Your task to perform on an android device: Search for custom t-shirts on Etsy. Image 0: 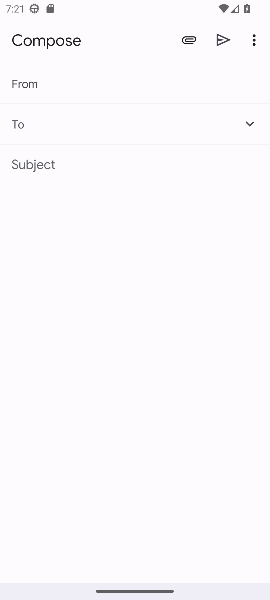
Step 0: press home button
Your task to perform on an android device: Search for custom t-shirts on Etsy. Image 1: 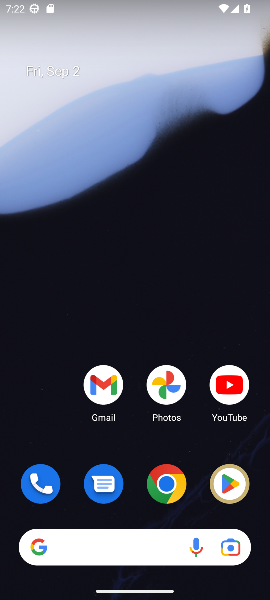
Step 1: click (171, 485)
Your task to perform on an android device: Search for custom t-shirts on Etsy. Image 2: 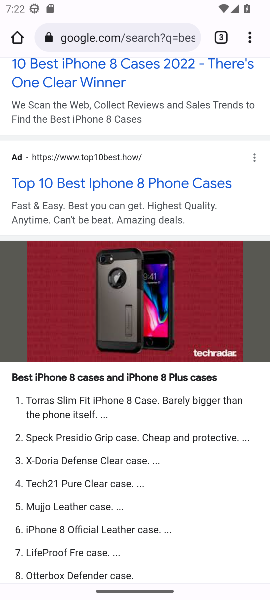
Step 2: click (147, 34)
Your task to perform on an android device: Search for custom t-shirts on Etsy. Image 3: 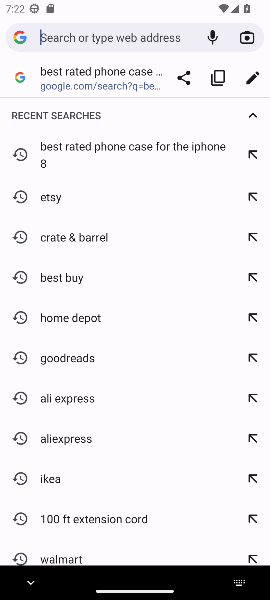
Step 3: type "Etsy"
Your task to perform on an android device: Search for custom t-shirts on Etsy. Image 4: 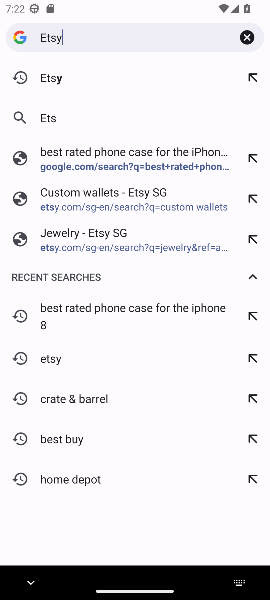
Step 4: press enter
Your task to perform on an android device: Search for custom t-shirts on Etsy. Image 5: 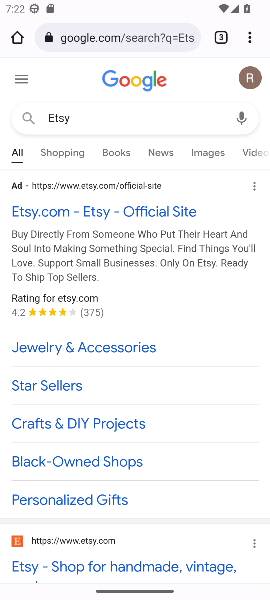
Step 5: drag from (162, 432) to (161, 87)
Your task to perform on an android device: Search for custom t-shirts on Etsy. Image 6: 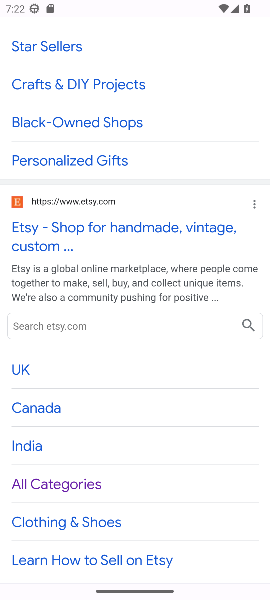
Step 6: drag from (139, 157) to (202, 485)
Your task to perform on an android device: Search for custom t-shirts on Etsy. Image 7: 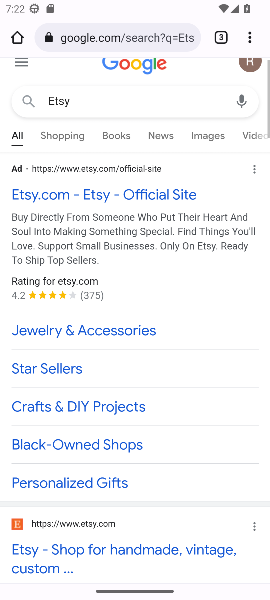
Step 7: drag from (172, 126) to (199, 434)
Your task to perform on an android device: Search for custom t-shirts on Etsy. Image 8: 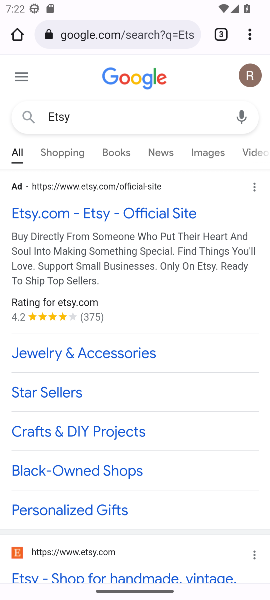
Step 8: click (104, 217)
Your task to perform on an android device: Search for custom t-shirts on Etsy. Image 9: 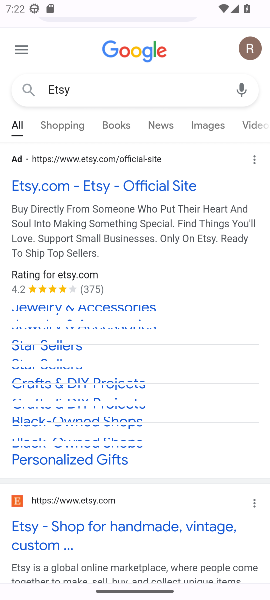
Step 9: click (69, 182)
Your task to perform on an android device: Search for custom t-shirts on Etsy. Image 10: 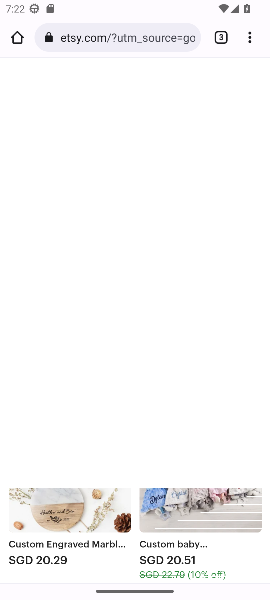
Step 10: drag from (126, 486) to (112, 335)
Your task to perform on an android device: Search for custom t-shirts on Etsy. Image 11: 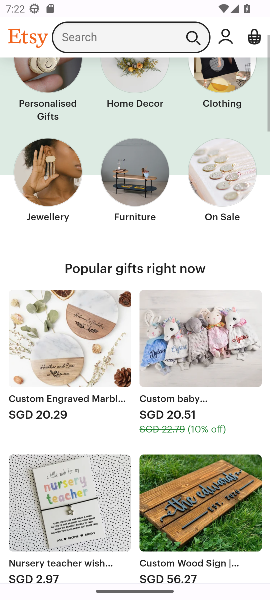
Step 11: click (134, 38)
Your task to perform on an android device: Search for custom t-shirts on Etsy. Image 12: 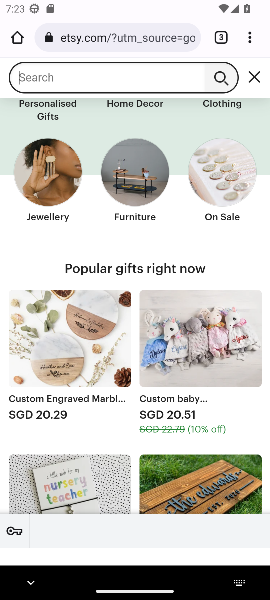
Step 12: type "custom t-shirts"
Your task to perform on an android device: Search for custom t-shirts on Etsy. Image 13: 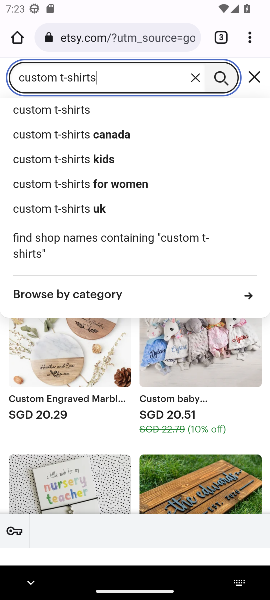
Step 13: click (86, 113)
Your task to perform on an android device: Search for custom t-shirts on Etsy. Image 14: 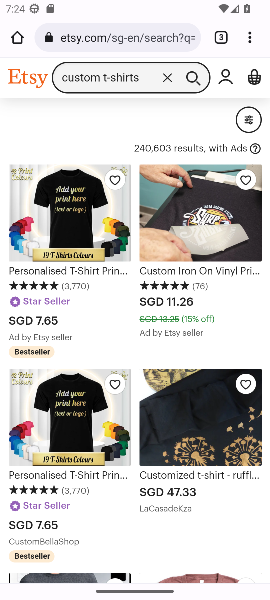
Step 14: task complete